Your task to perform on an android device: add a contact Image 0: 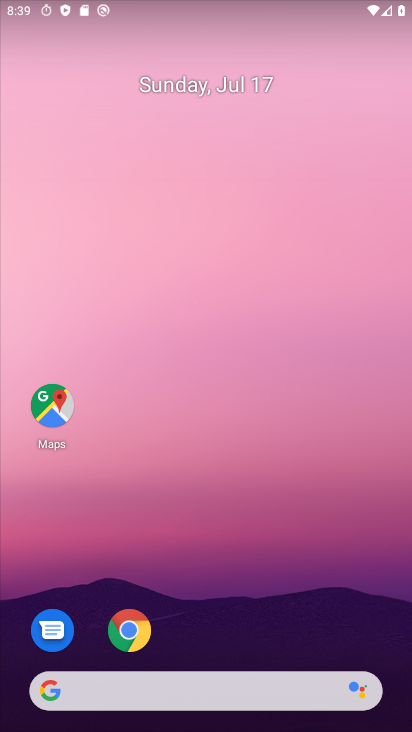
Step 0: drag from (32, 682) to (230, 318)
Your task to perform on an android device: add a contact Image 1: 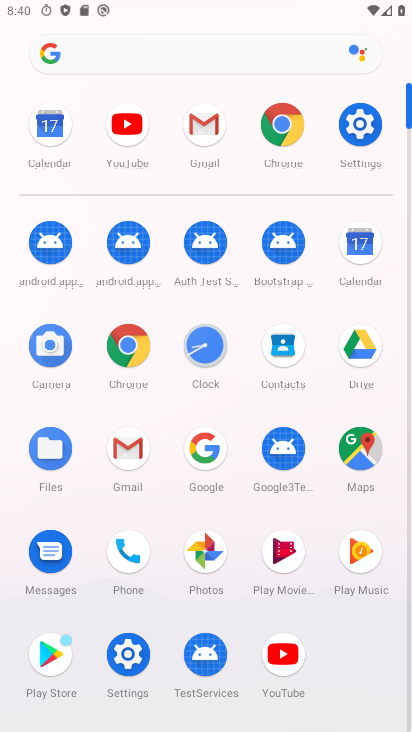
Step 1: click (271, 357)
Your task to perform on an android device: add a contact Image 2: 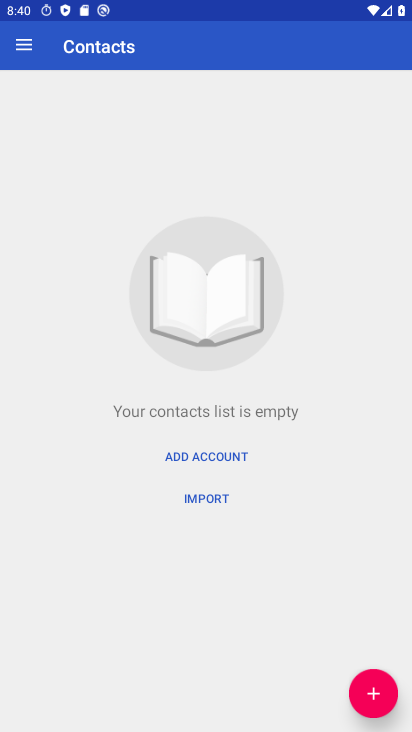
Step 2: click (372, 686)
Your task to perform on an android device: add a contact Image 3: 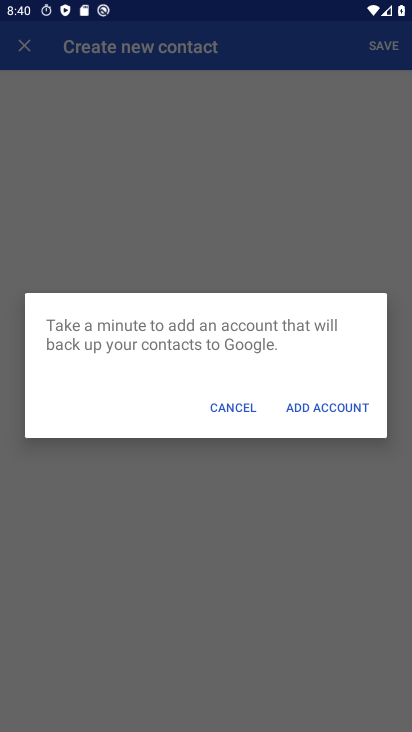
Step 3: click (314, 405)
Your task to perform on an android device: add a contact Image 4: 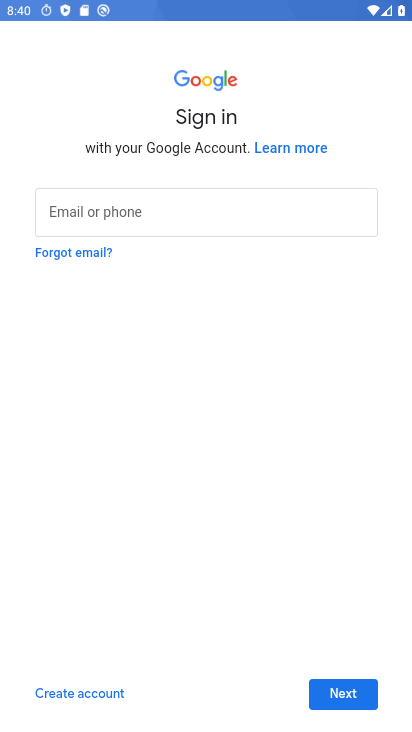
Step 4: click (333, 702)
Your task to perform on an android device: add a contact Image 5: 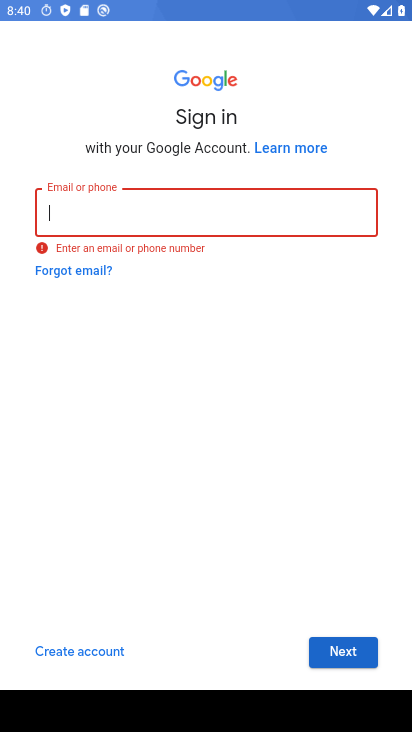
Step 5: task complete